Your task to perform on an android device: toggle airplane mode Image 0: 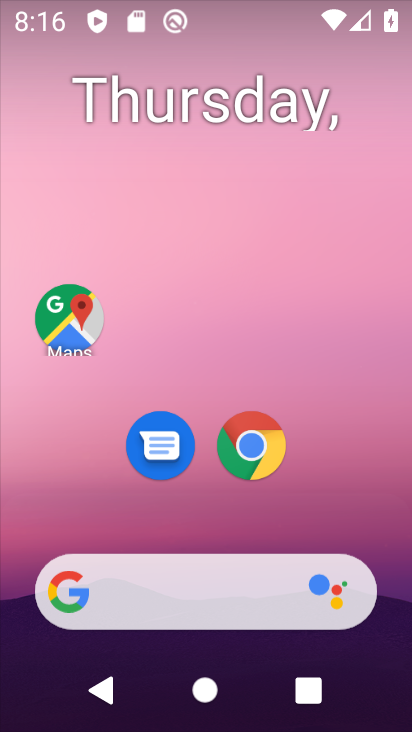
Step 0: drag from (307, 270) to (312, 534)
Your task to perform on an android device: toggle airplane mode Image 1: 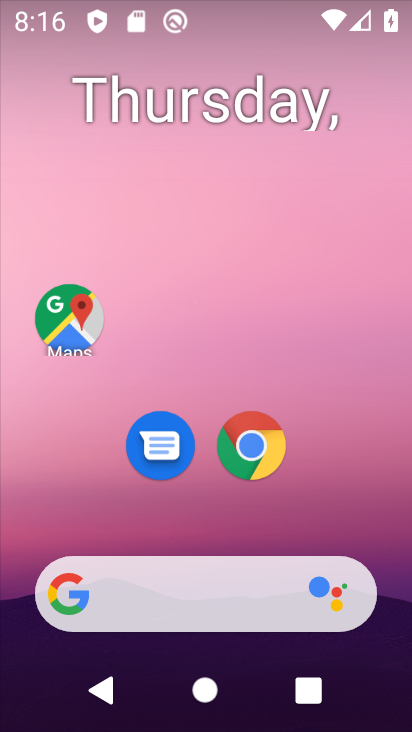
Step 1: drag from (312, 385) to (285, 139)
Your task to perform on an android device: toggle airplane mode Image 2: 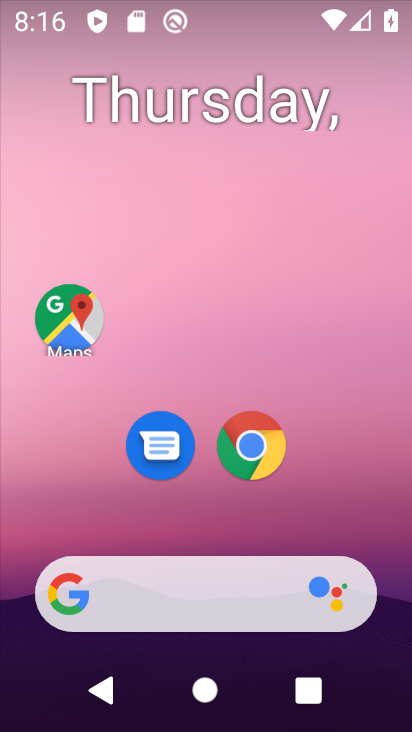
Step 2: drag from (368, 674) to (280, 118)
Your task to perform on an android device: toggle airplane mode Image 3: 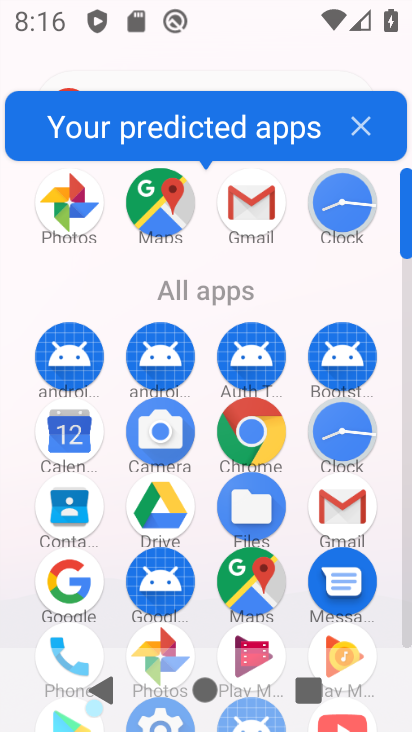
Step 3: drag from (206, 577) to (182, 256)
Your task to perform on an android device: toggle airplane mode Image 4: 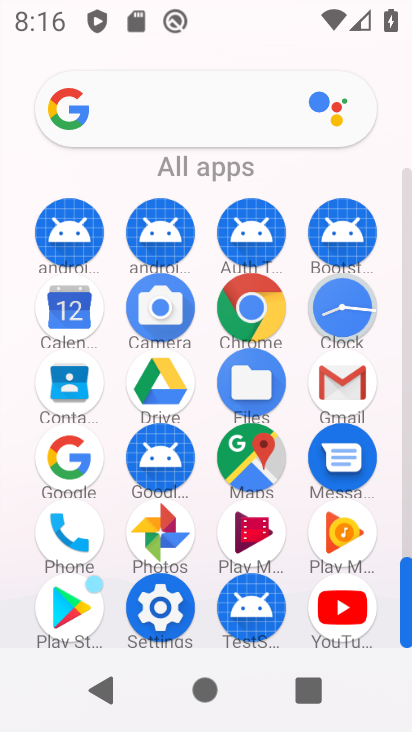
Step 4: click (169, 615)
Your task to perform on an android device: toggle airplane mode Image 5: 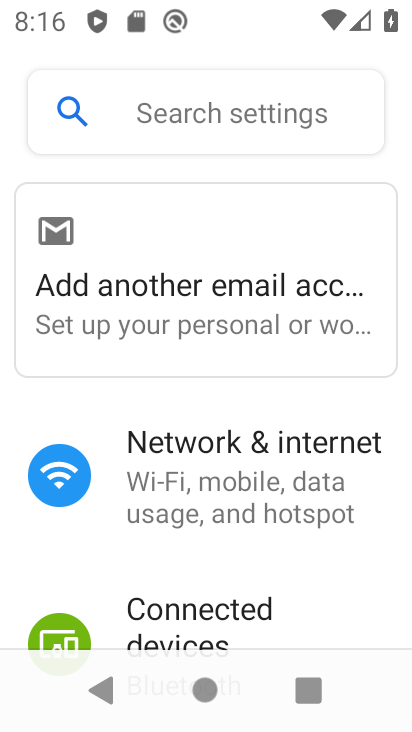
Step 5: click (246, 510)
Your task to perform on an android device: toggle airplane mode Image 6: 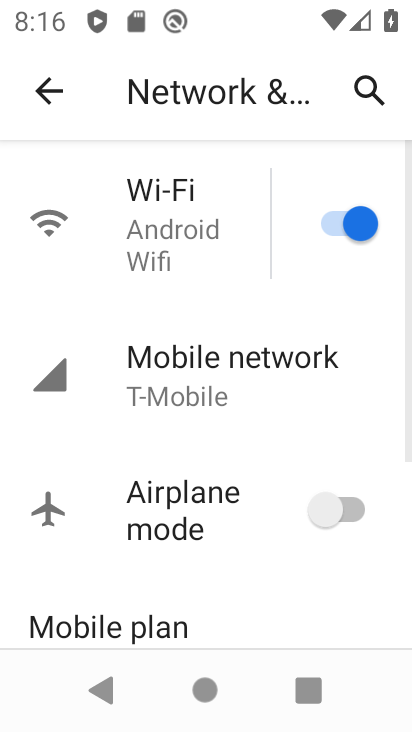
Step 6: click (338, 516)
Your task to perform on an android device: toggle airplane mode Image 7: 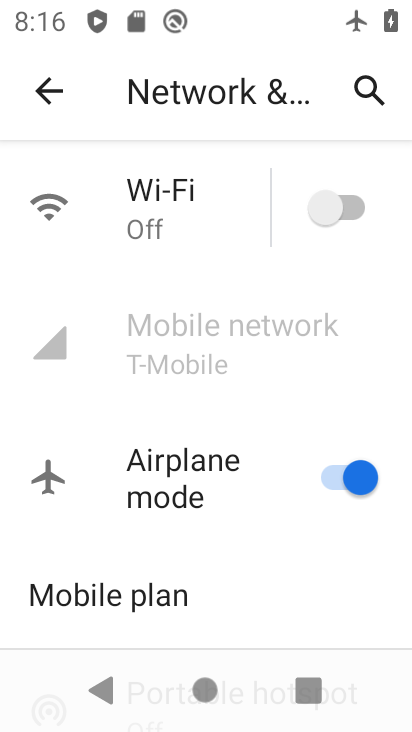
Step 7: task complete